Your task to perform on an android device: Open the calendar and show me this week's events? Image 0: 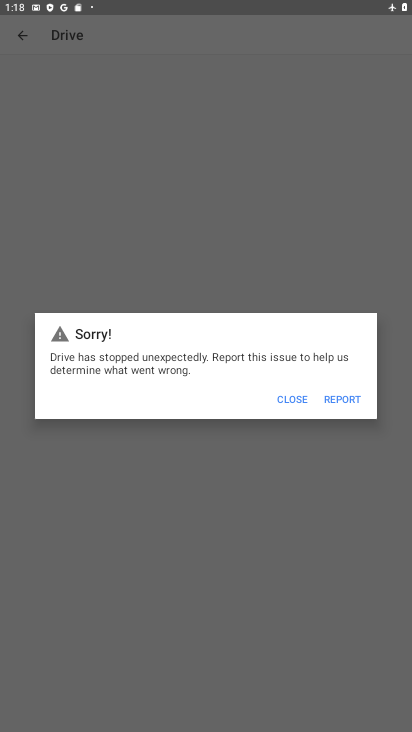
Step 0: press home button
Your task to perform on an android device: Open the calendar and show me this week's events? Image 1: 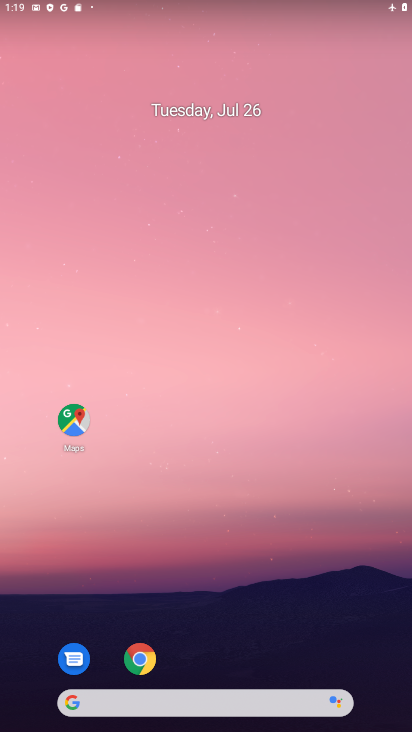
Step 1: drag from (263, 635) to (212, 17)
Your task to perform on an android device: Open the calendar and show me this week's events? Image 2: 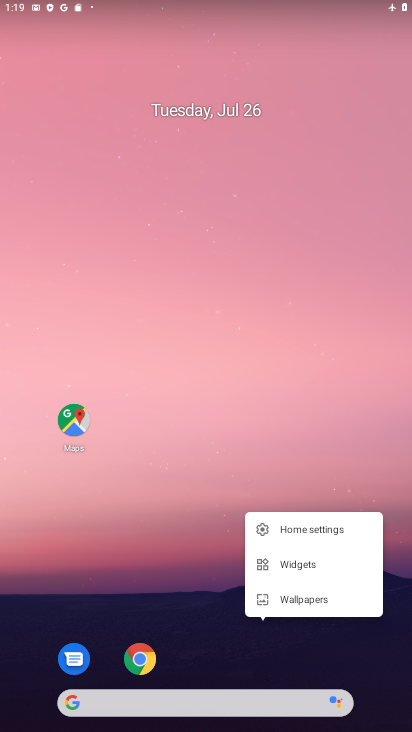
Step 2: drag from (212, 634) to (188, 65)
Your task to perform on an android device: Open the calendar and show me this week's events? Image 3: 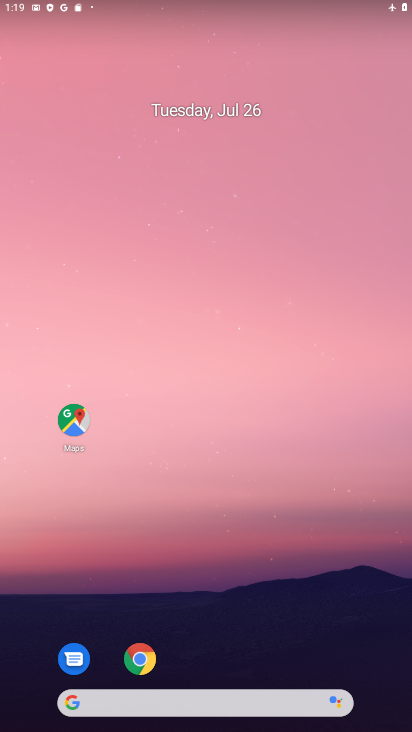
Step 3: drag from (283, 651) to (304, 15)
Your task to perform on an android device: Open the calendar and show me this week's events? Image 4: 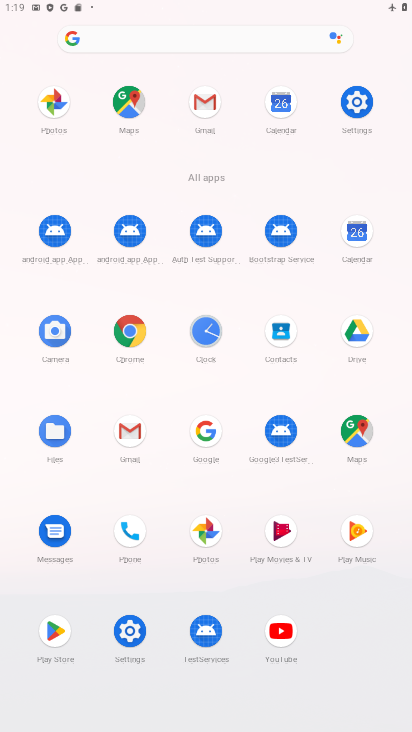
Step 4: click (355, 236)
Your task to perform on an android device: Open the calendar and show me this week's events? Image 5: 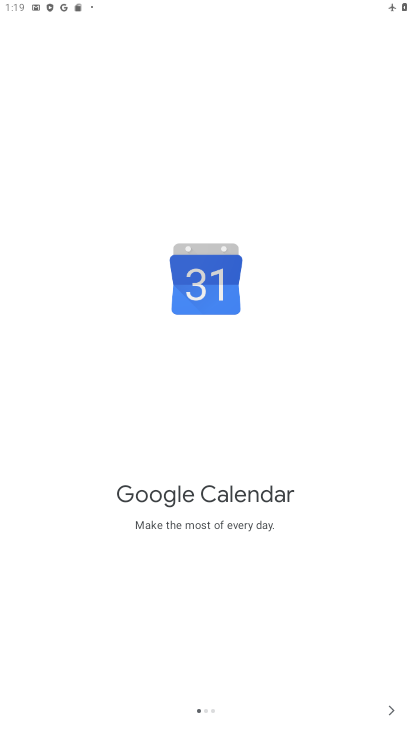
Step 5: click (393, 716)
Your task to perform on an android device: Open the calendar and show me this week's events? Image 6: 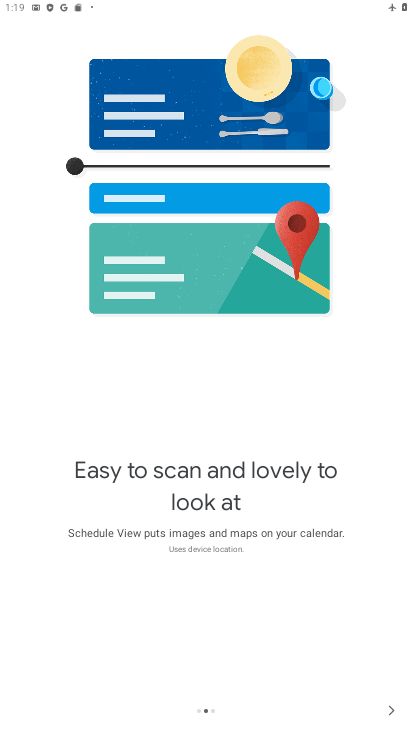
Step 6: click (391, 716)
Your task to perform on an android device: Open the calendar and show me this week's events? Image 7: 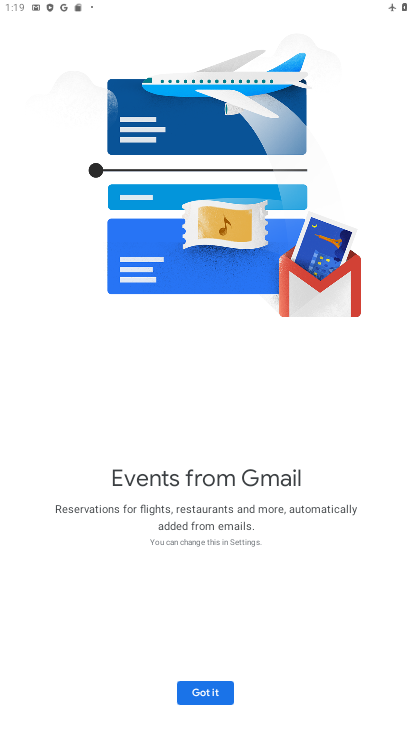
Step 7: click (193, 693)
Your task to perform on an android device: Open the calendar and show me this week's events? Image 8: 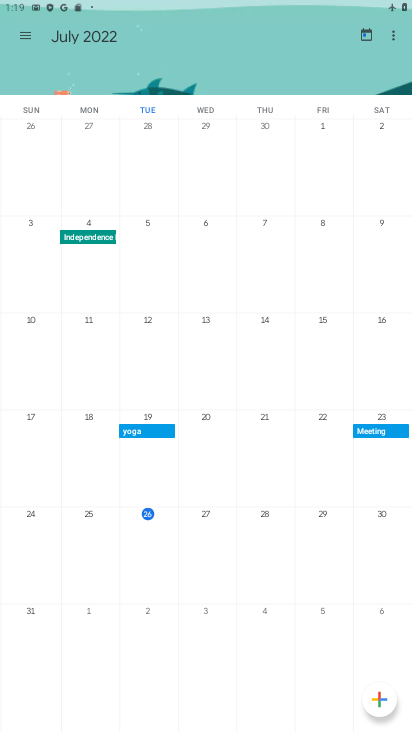
Step 8: click (29, 37)
Your task to perform on an android device: Open the calendar and show me this week's events? Image 9: 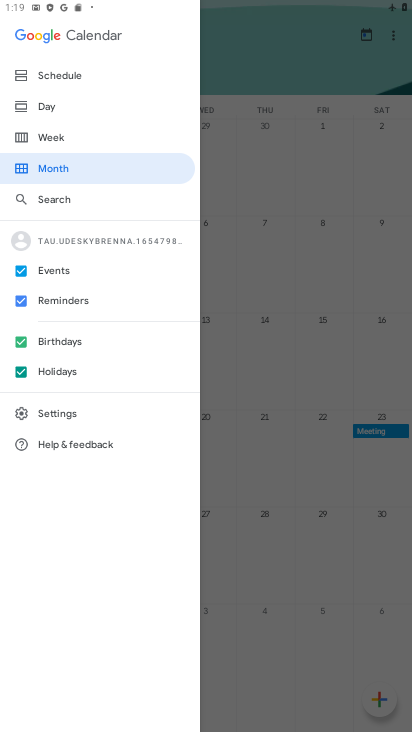
Step 9: click (51, 145)
Your task to perform on an android device: Open the calendar and show me this week's events? Image 10: 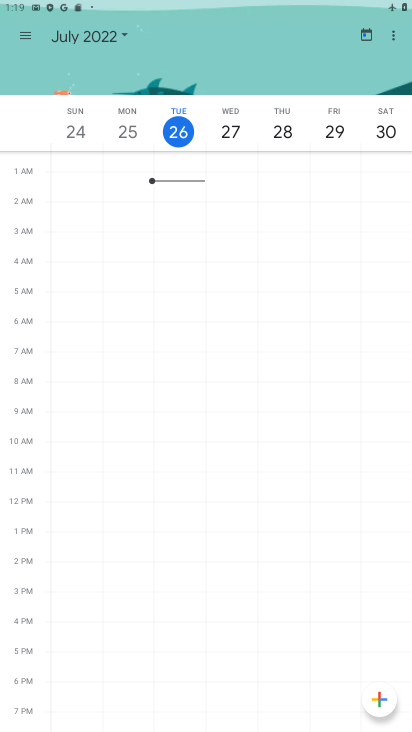
Step 10: task complete